Your task to perform on an android device: turn off sleep mode Image 0: 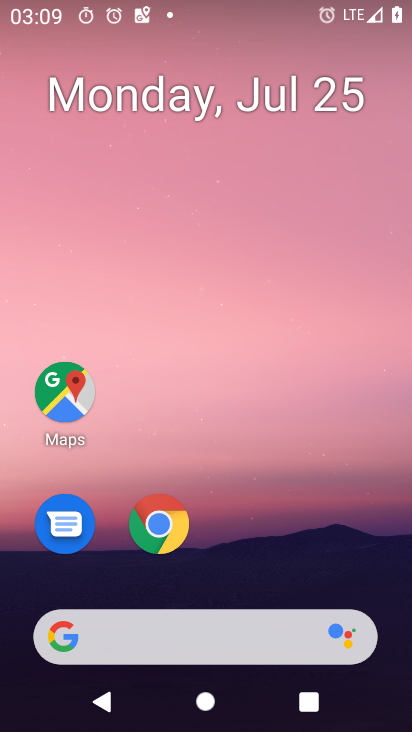
Step 0: press home button
Your task to perform on an android device: turn off sleep mode Image 1: 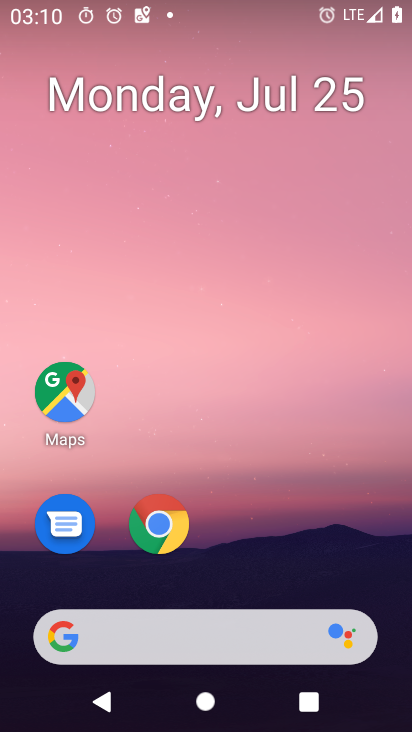
Step 1: drag from (262, 574) to (229, 77)
Your task to perform on an android device: turn off sleep mode Image 2: 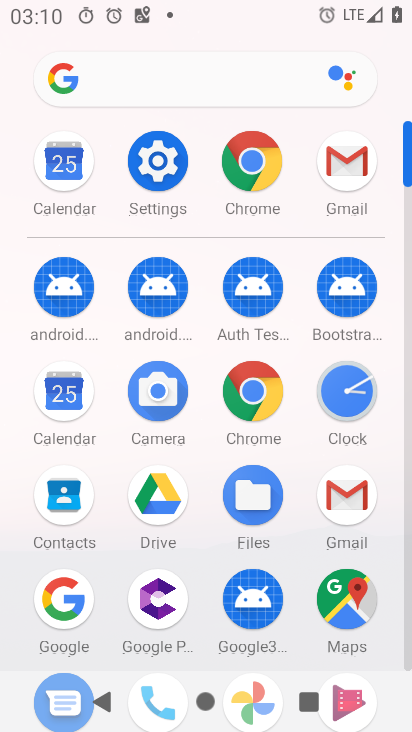
Step 2: click (159, 165)
Your task to perform on an android device: turn off sleep mode Image 3: 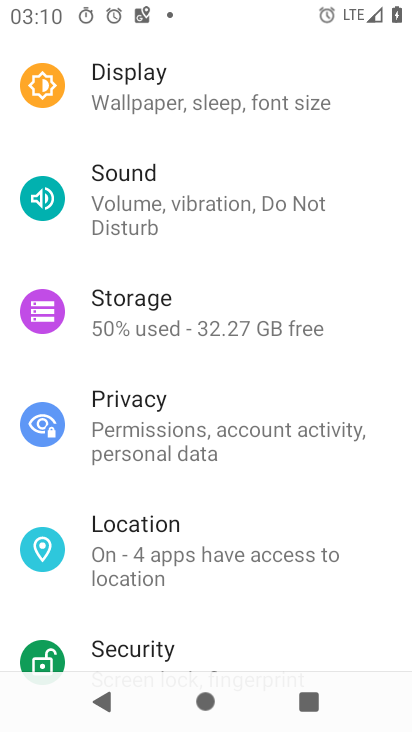
Step 3: click (138, 102)
Your task to perform on an android device: turn off sleep mode Image 4: 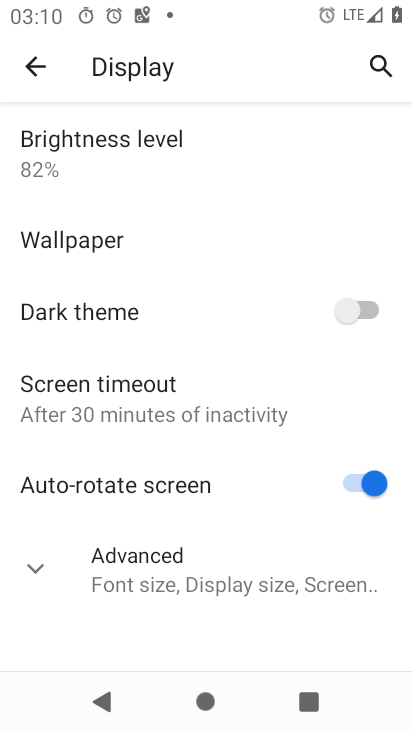
Step 4: task complete